Your task to perform on an android device: change keyboard looks Image 0: 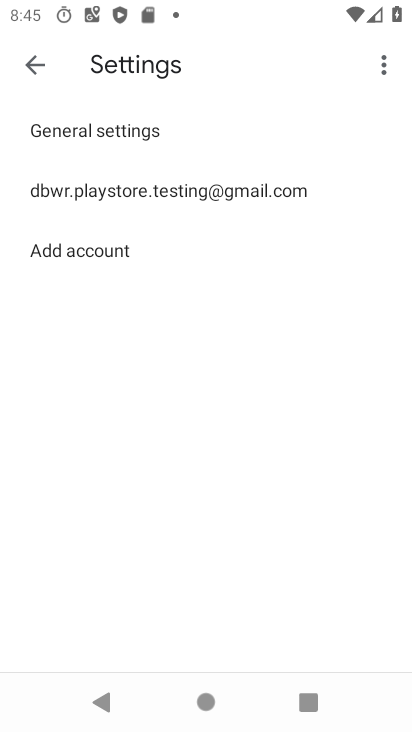
Step 0: press home button
Your task to perform on an android device: change keyboard looks Image 1: 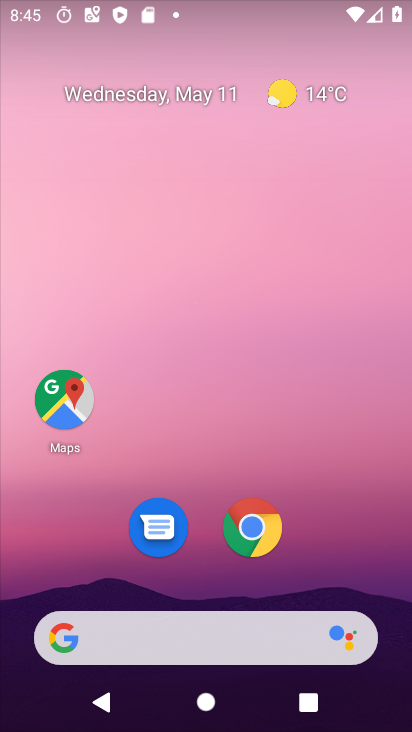
Step 1: drag from (132, 638) to (157, 242)
Your task to perform on an android device: change keyboard looks Image 2: 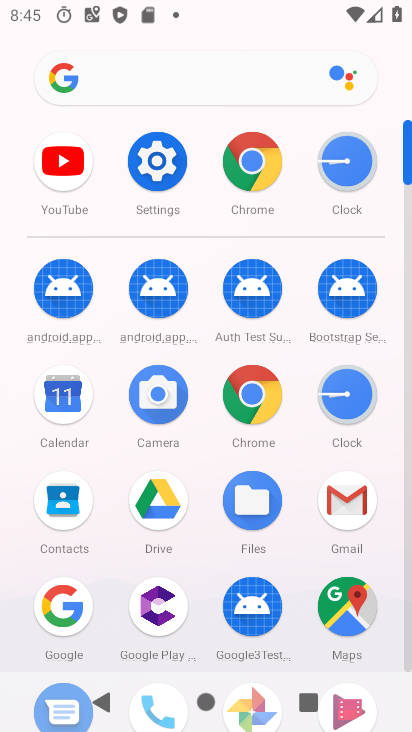
Step 2: click (185, 175)
Your task to perform on an android device: change keyboard looks Image 3: 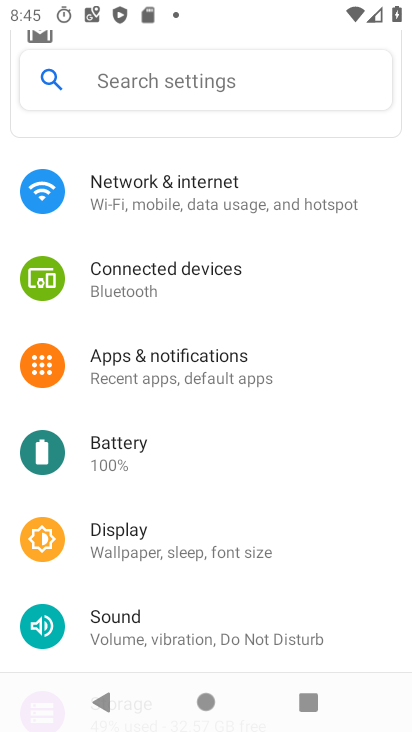
Step 3: drag from (175, 443) to (188, 185)
Your task to perform on an android device: change keyboard looks Image 4: 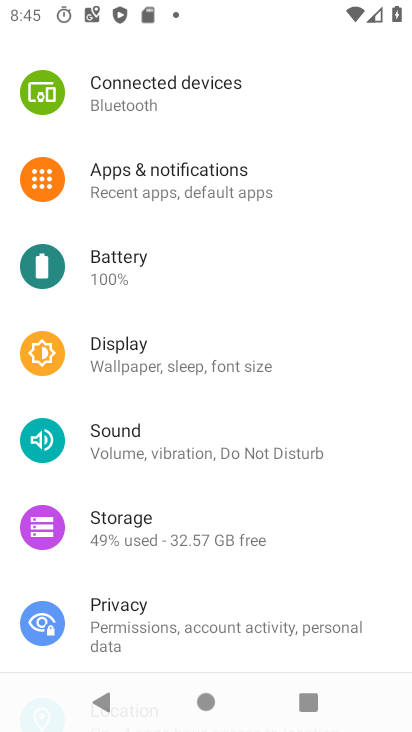
Step 4: drag from (149, 447) to (156, 306)
Your task to perform on an android device: change keyboard looks Image 5: 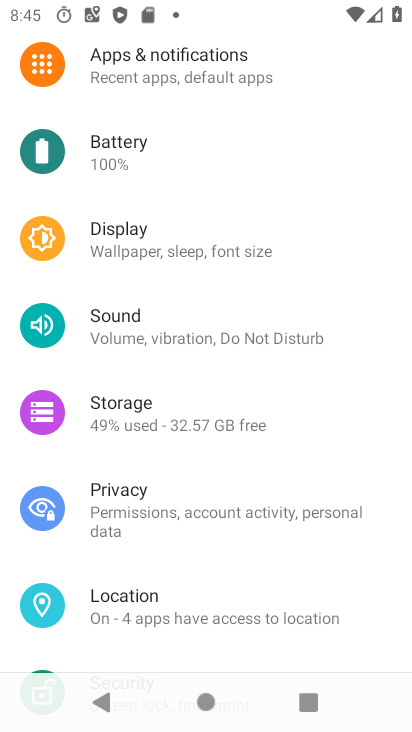
Step 5: drag from (150, 360) to (160, 286)
Your task to perform on an android device: change keyboard looks Image 6: 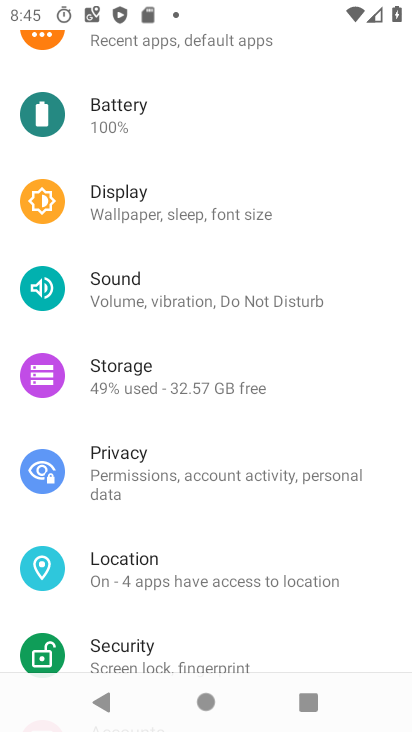
Step 6: drag from (180, 447) to (220, 2)
Your task to perform on an android device: change keyboard looks Image 7: 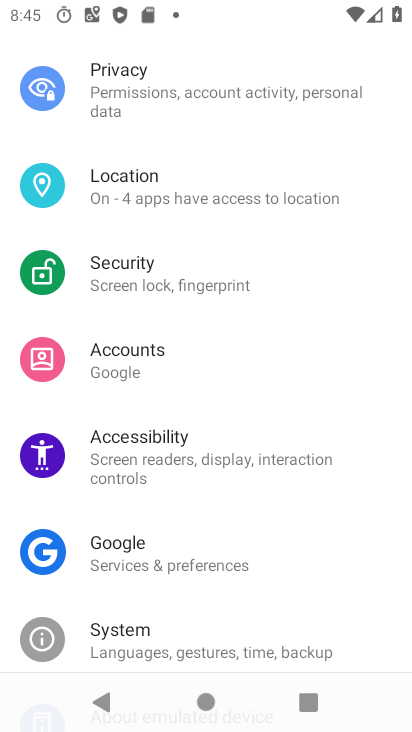
Step 7: click (167, 644)
Your task to perform on an android device: change keyboard looks Image 8: 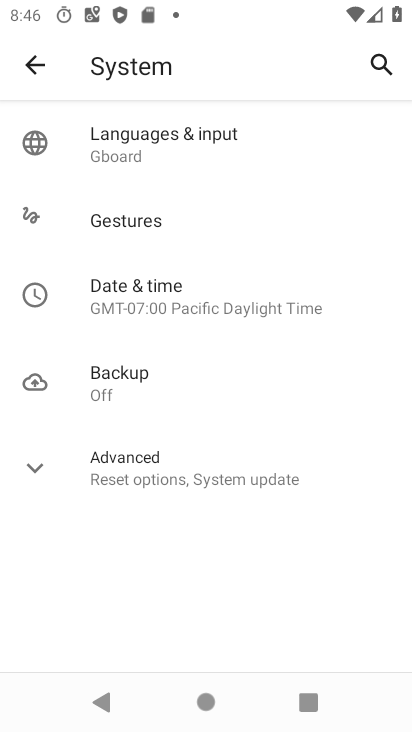
Step 8: click (191, 153)
Your task to perform on an android device: change keyboard looks Image 9: 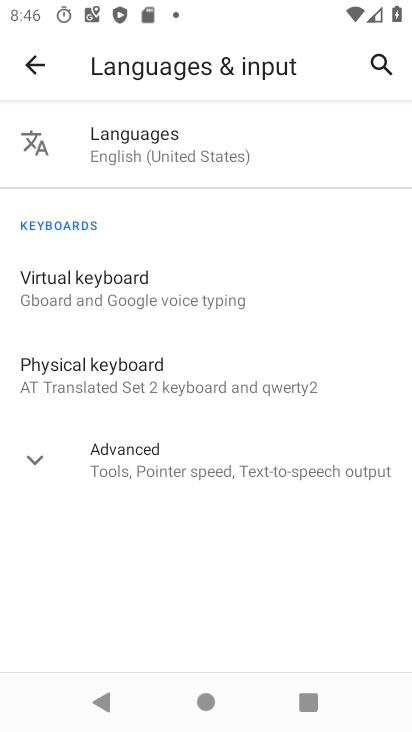
Step 9: click (211, 304)
Your task to perform on an android device: change keyboard looks Image 10: 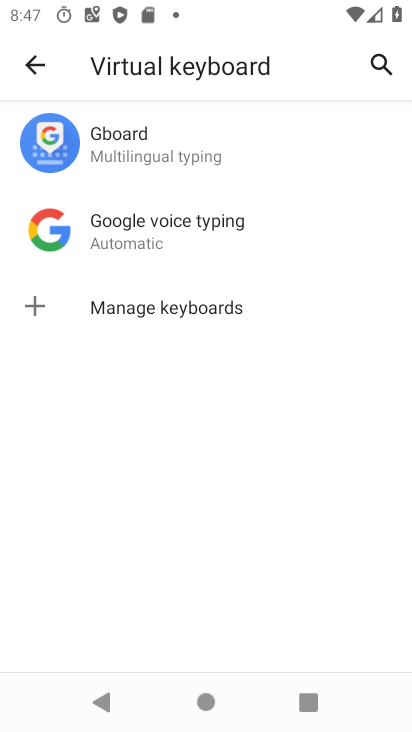
Step 10: click (150, 168)
Your task to perform on an android device: change keyboard looks Image 11: 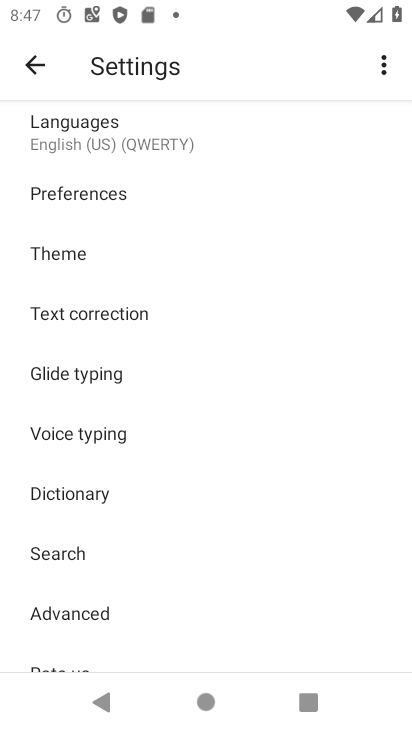
Step 11: click (74, 234)
Your task to perform on an android device: change keyboard looks Image 12: 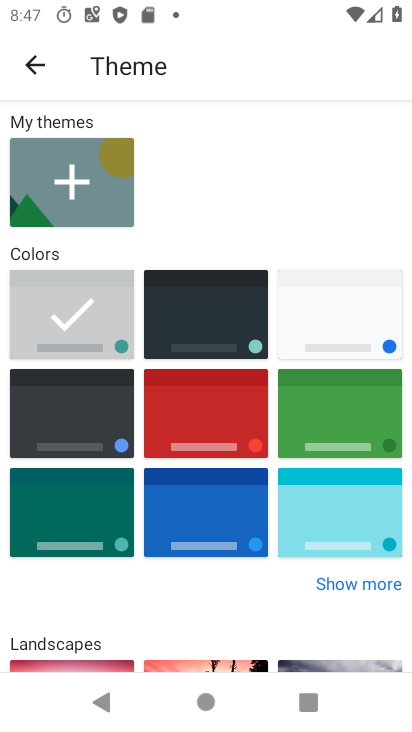
Step 12: click (176, 329)
Your task to perform on an android device: change keyboard looks Image 13: 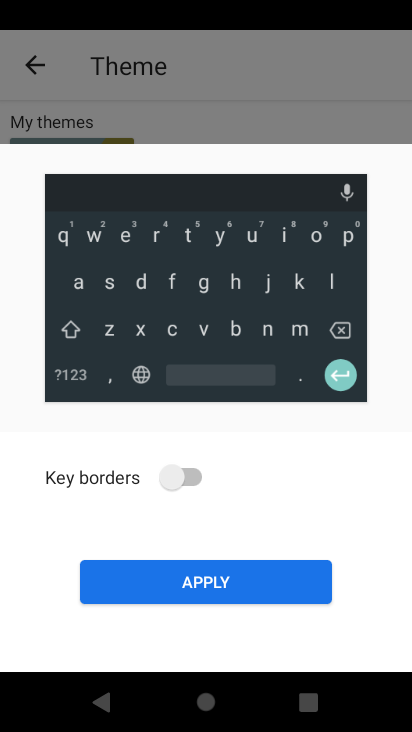
Step 13: click (278, 586)
Your task to perform on an android device: change keyboard looks Image 14: 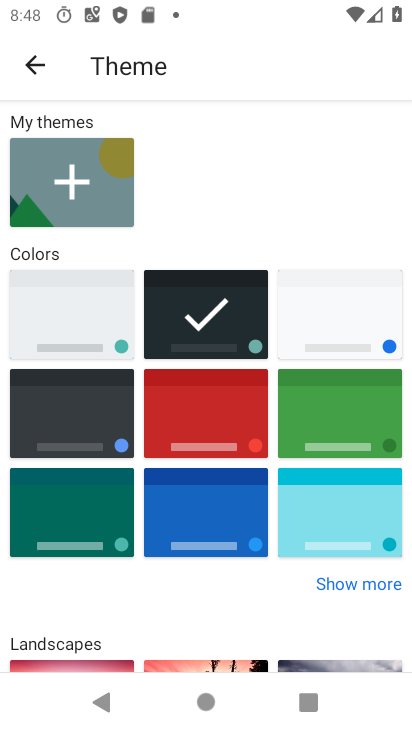
Step 14: task complete